Your task to perform on an android device: What's the weather going to be tomorrow? Image 0: 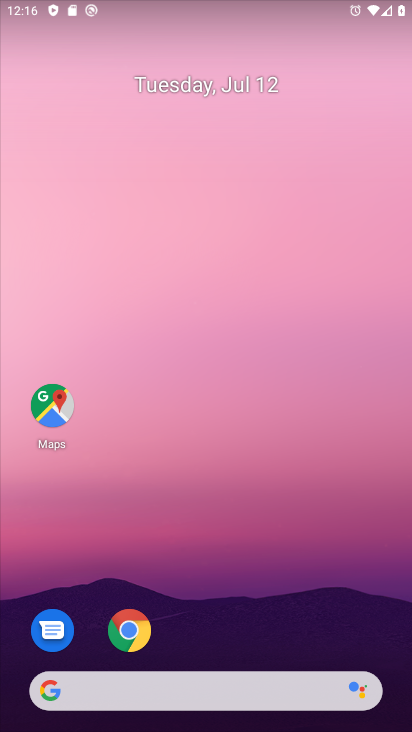
Step 0: drag from (13, 239) to (336, 259)
Your task to perform on an android device: What's the weather going to be tomorrow? Image 1: 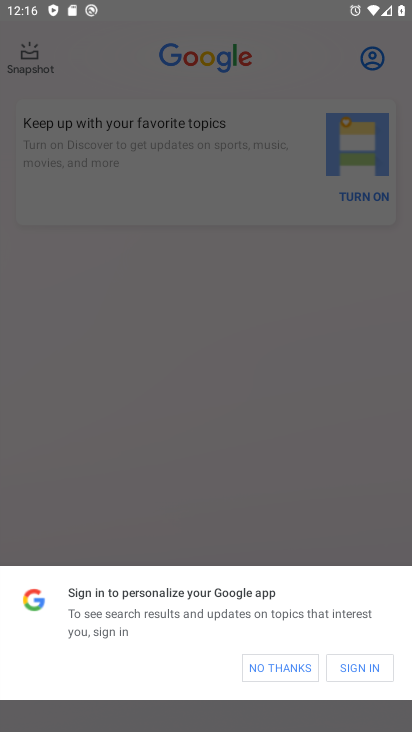
Step 1: task complete